Your task to perform on an android device: see creations saved in the google photos Image 0: 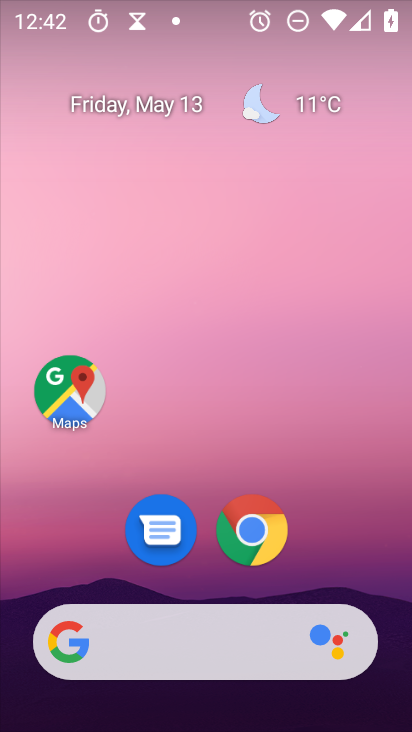
Step 0: press home button
Your task to perform on an android device: see creations saved in the google photos Image 1: 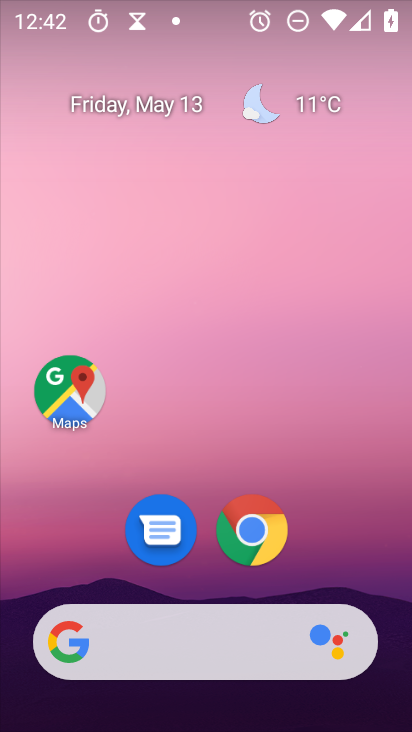
Step 1: drag from (198, 630) to (283, 137)
Your task to perform on an android device: see creations saved in the google photos Image 2: 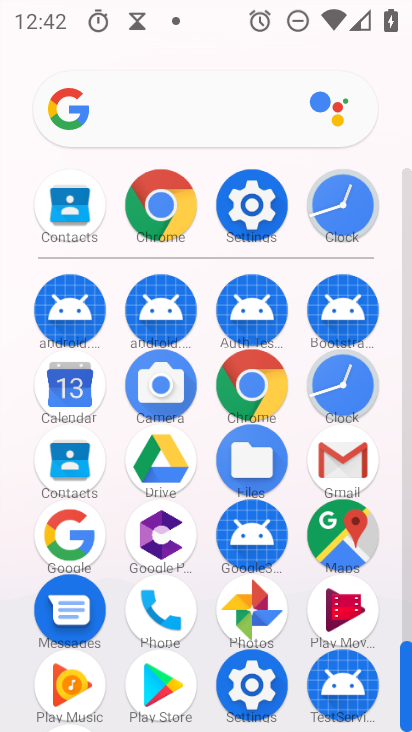
Step 2: click (254, 606)
Your task to perform on an android device: see creations saved in the google photos Image 3: 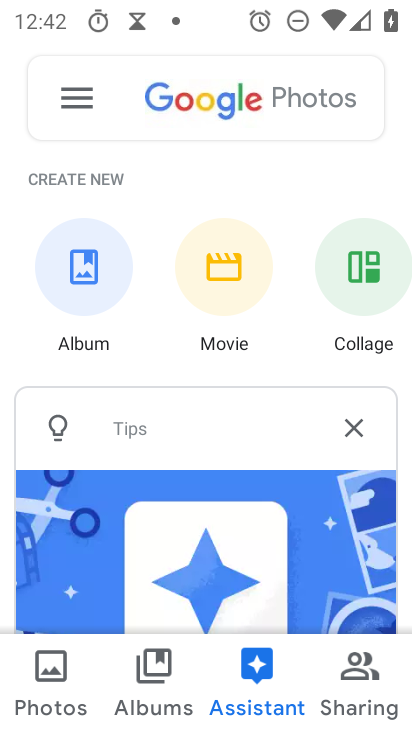
Step 3: click (158, 678)
Your task to perform on an android device: see creations saved in the google photos Image 4: 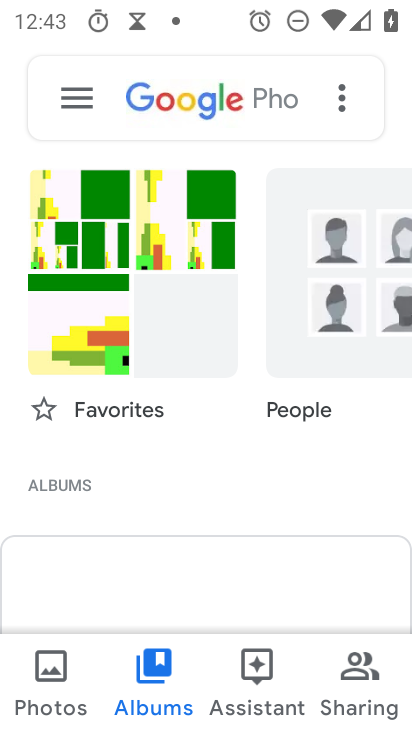
Step 4: click (223, 101)
Your task to perform on an android device: see creations saved in the google photos Image 5: 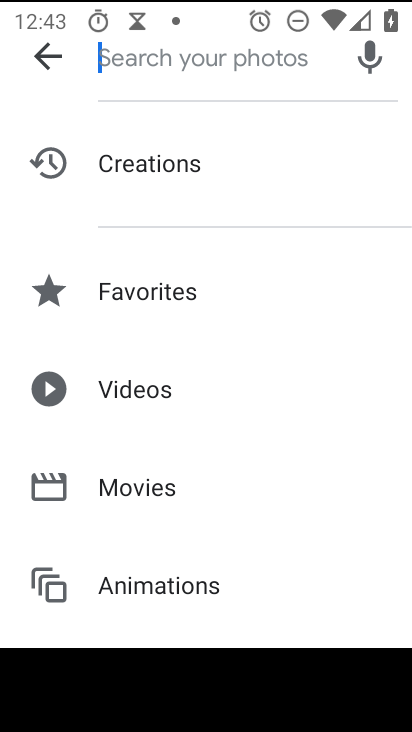
Step 5: drag from (203, 559) to (349, 236)
Your task to perform on an android device: see creations saved in the google photos Image 6: 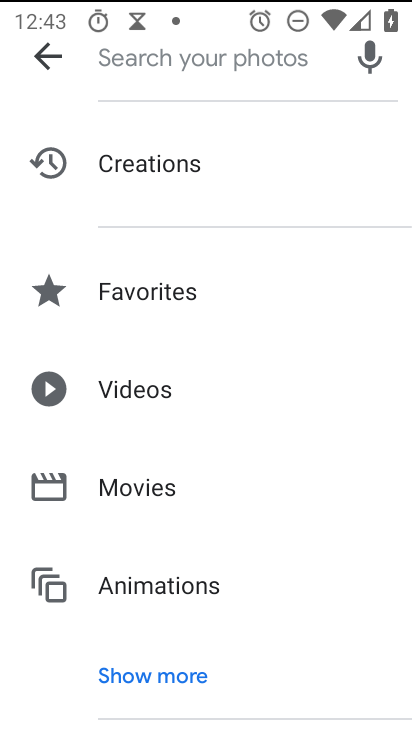
Step 6: click (190, 674)
Your task to perform on an android device: see creations saved in the google photos Image 7: 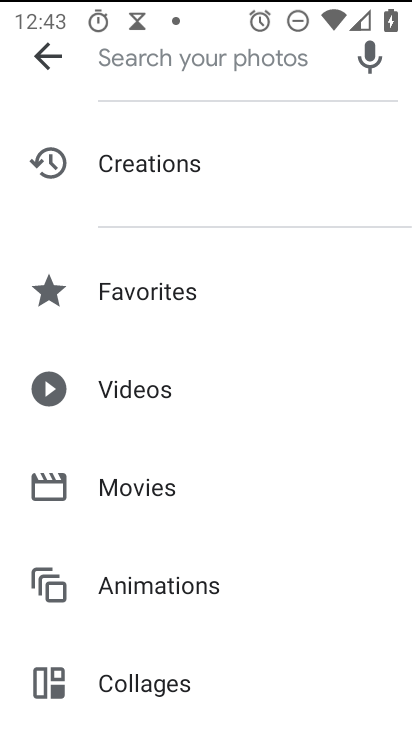
Step 7: drag from (247, 644) to (324, 304)
Your task to perform on an android device: see creations saved in the google photos Image 8: 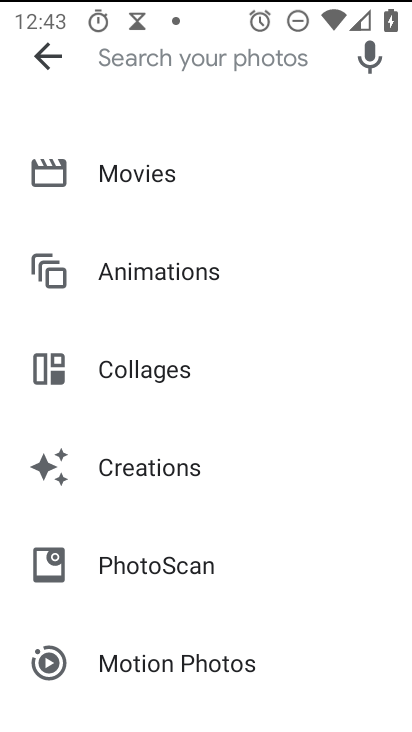
Step 8: click (172, 470)
Your task to perform on an android device: see creations saved in the google photos Image 9: 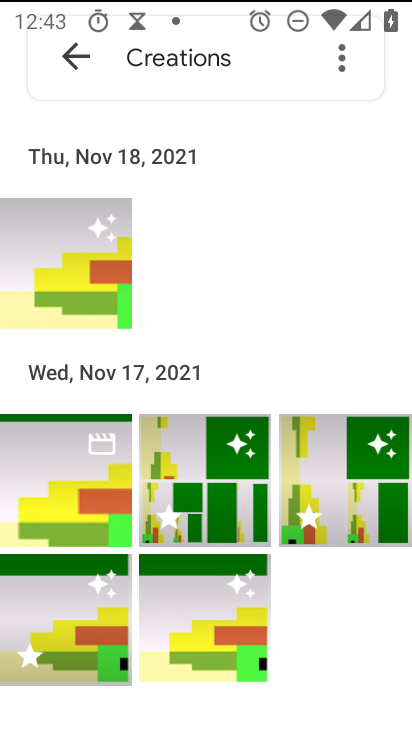
Step 9: task complete